Your task to perform on an android device: Go to accessibility settings Image 0: 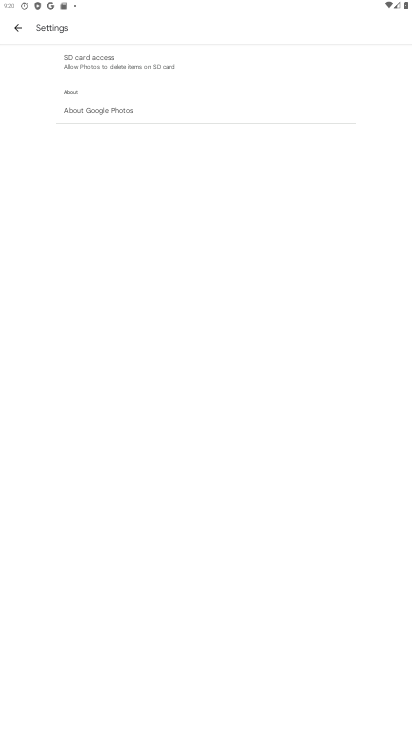
Step 0: press home button
Your task to perform on an android device: Go to accessibility settings Image 1: 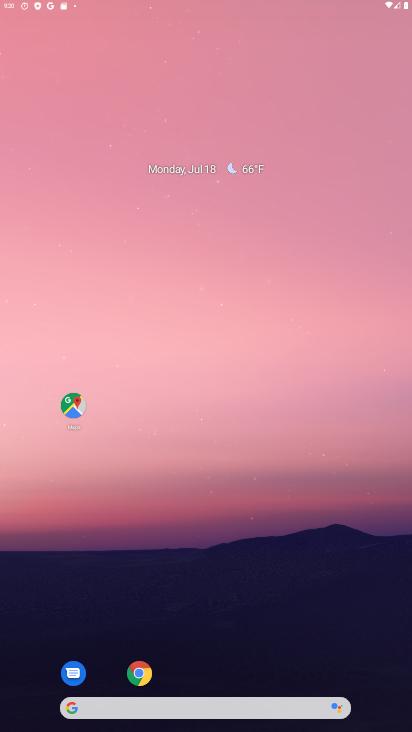
Step 1: drag from (210, 685) to (218, 141)
Your task to perform on an android device: Go to accessibility settings Image 2: 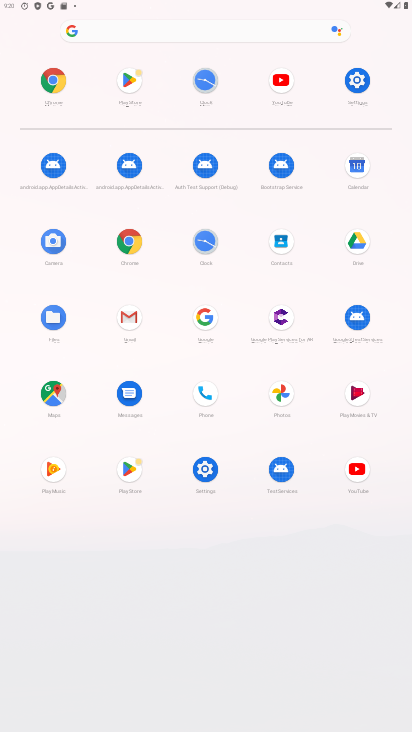
Step 2: click (354, 79)
Your task to perform on an android device: Go to accessibility settings Image 3: 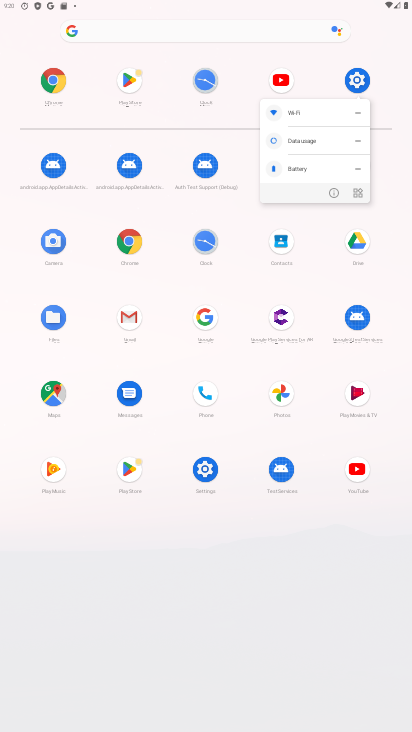
Step 3: click (355, 81)
Your task to perform on an android device: Go to accessibility settings Image 4: 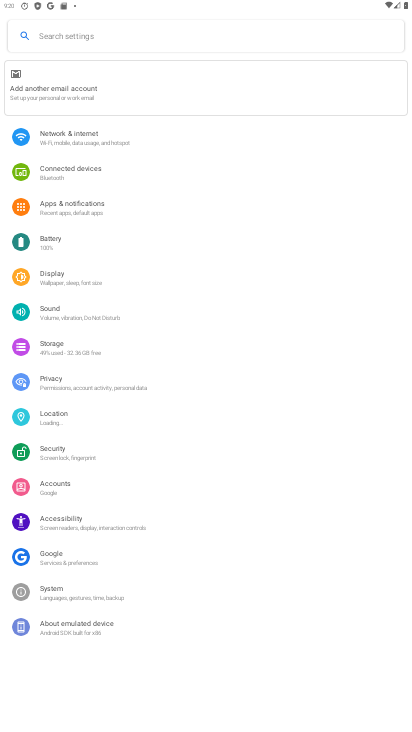
Step 4: click (73, 519)
Your task to perform on an android device: Go to accessibility settings Image 5: 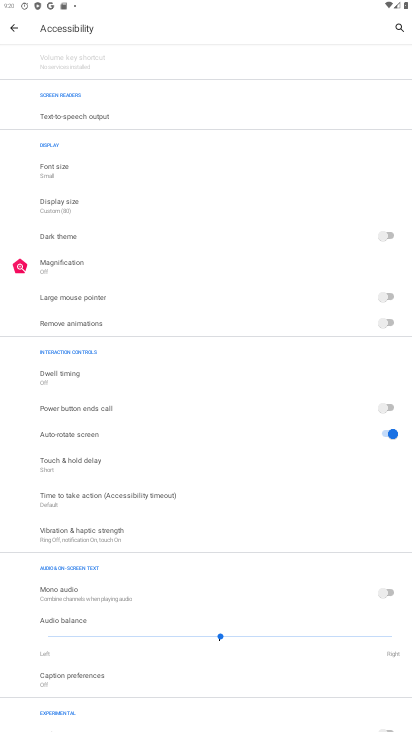
Step 5: task complete